Your task to perform on an android device: Search for seafood restaurants on Google Maps Image 0: 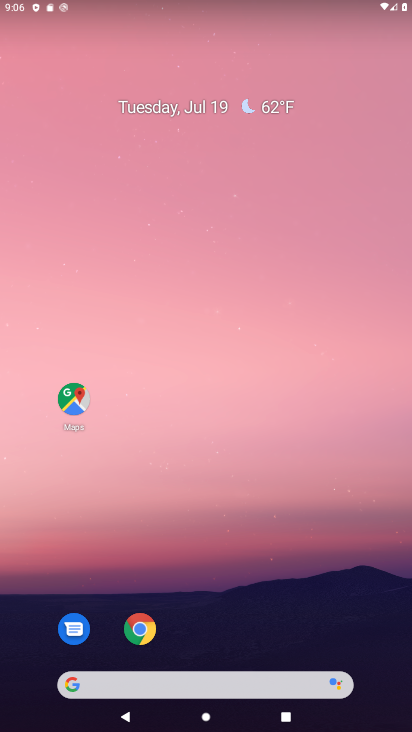
Step 0: press home button
Your task to perform on an android device: Search for seafood restaurants on Google Maps Image 1: 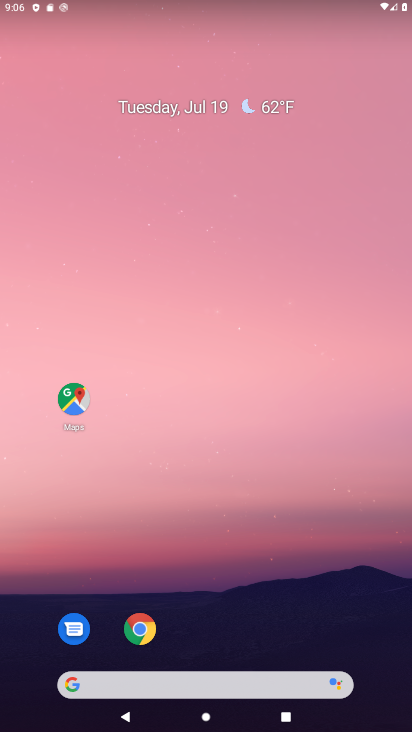
Step 1: click (67, 401)
Your task to perform on an android device: Search for seafood restaurants on Google Maps Image 2: 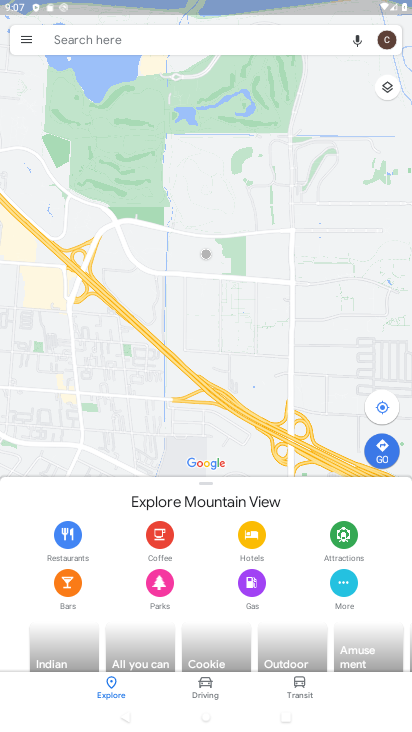
Step 2: click (96, 36)
Your task to perform on an android device: Search for seafood restaurants on Google Maps Image 3: 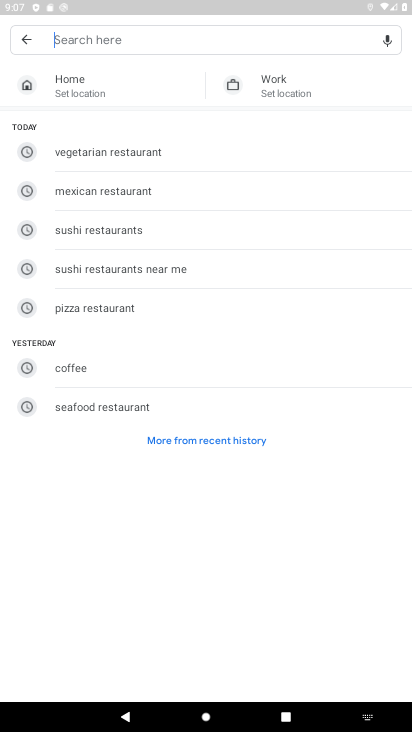
Step 3: click (86, 406)
Your task to perform on an android device: Search for seafood restaurants on Google Maps Image 4: 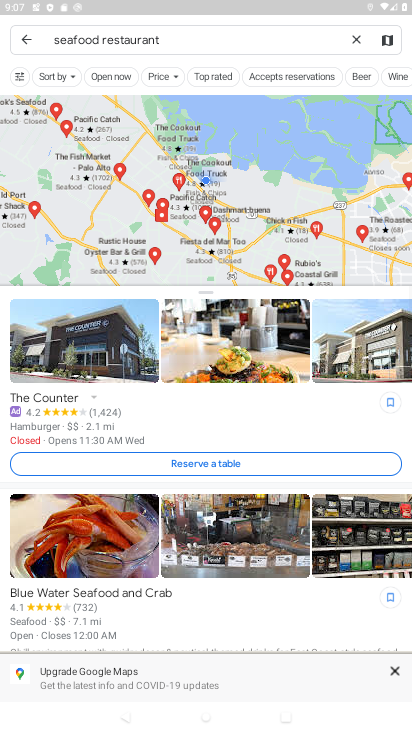
Step 4: task complete